Your task to perform on an android device: Go to location settings Image 0: 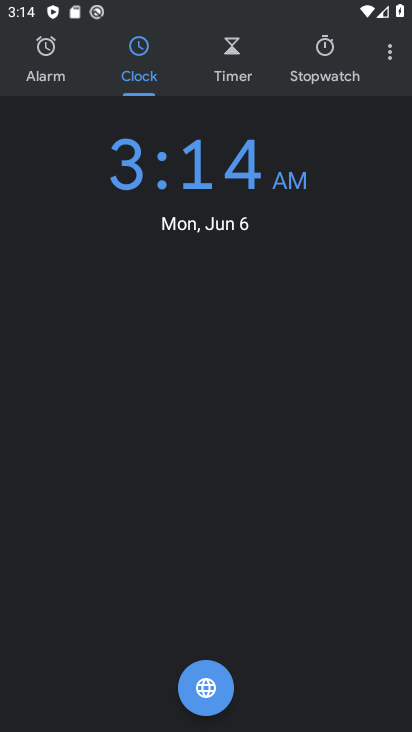
Step 0: press home button
Your task to perform on an android device: Go to location settings Image 1: 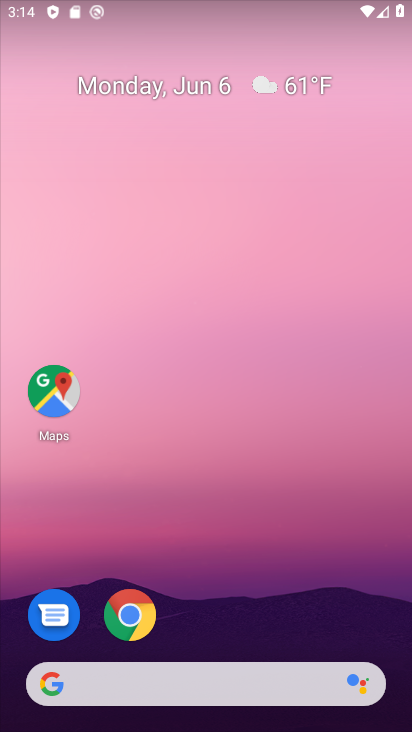
Step 1: drag from (390, 647) to (363, 116)
Your task to perform on an android device: Go to location settings Image 2: 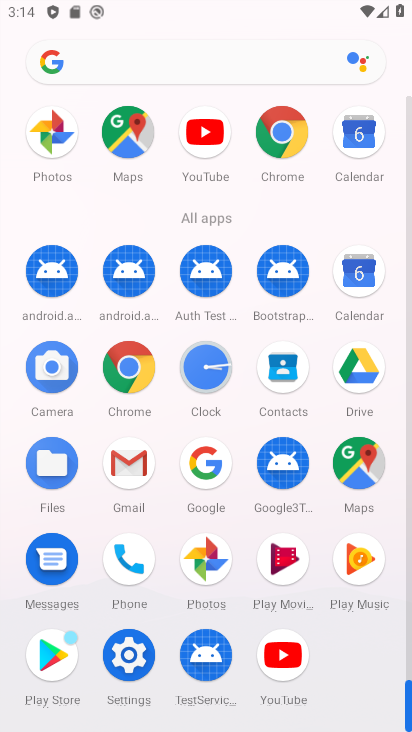
Step 2: click (127, 652)
Your task to perform on an android device: Go to location settings Image 3: 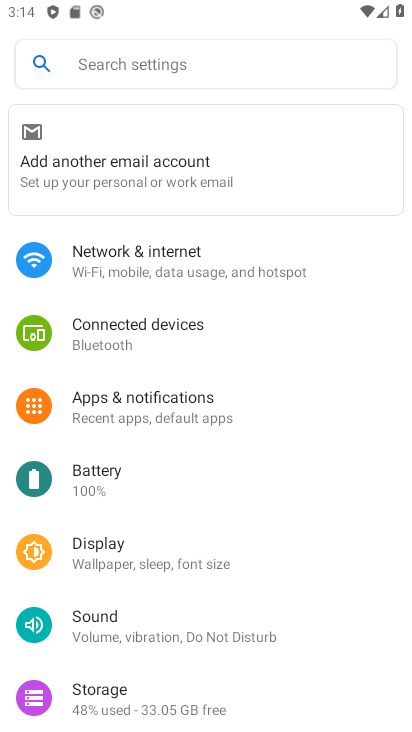
Step 3: drag from (300, 631) to (335, 304)
Your task to perform on an android device: Go to location settings Image 4: 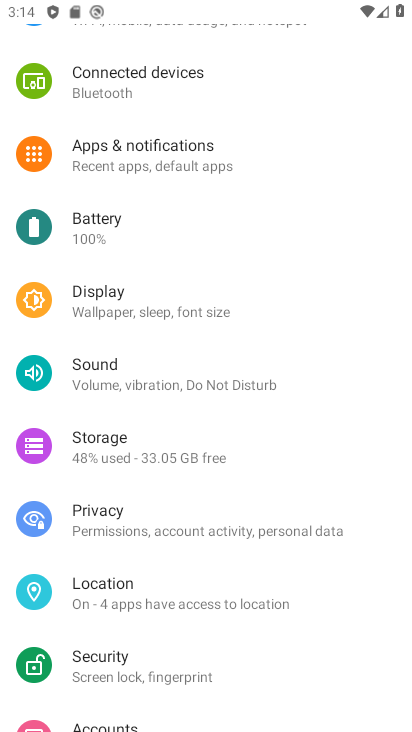
Step 4: click (109, 599)
Your task to perform on an android device: Go to location settings Image 5: 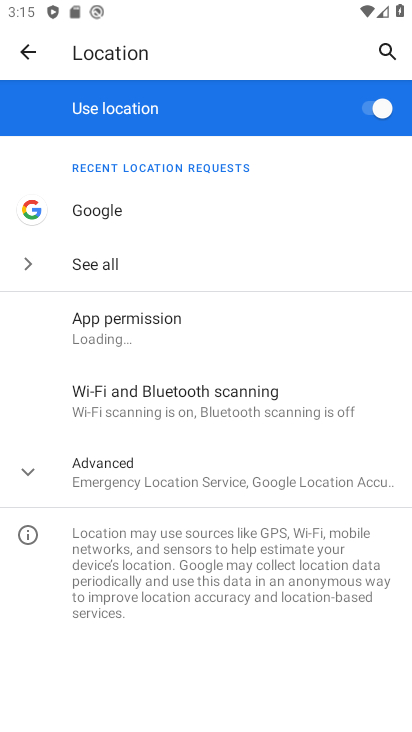
Step 5: click (27, 470)
Your task to perform on an android device: Go to location settings Image 6: 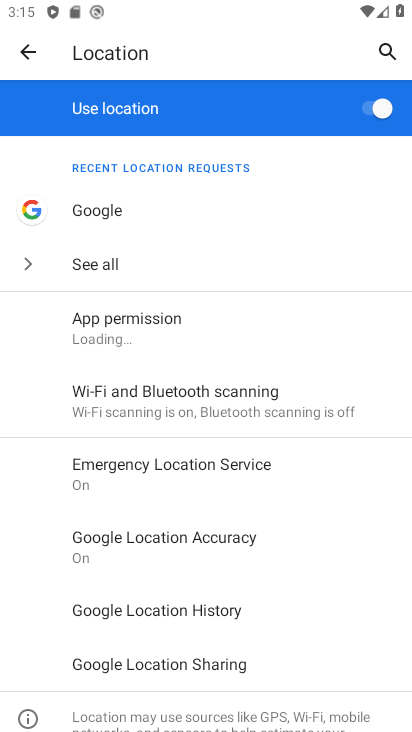
Step 6: task complete